Your task to perform on an android device: Turn on the flashlight Image 0: 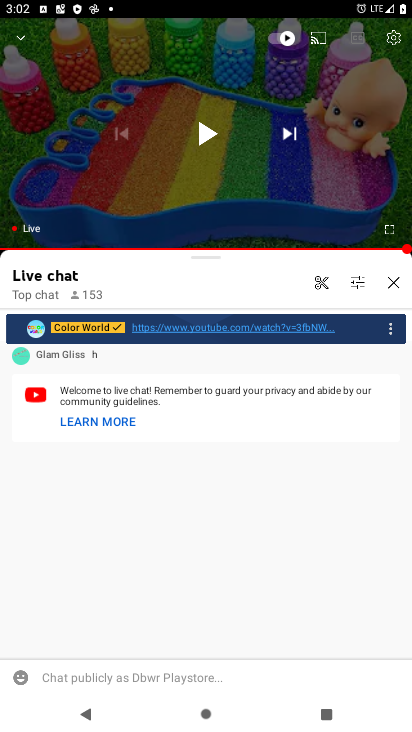
Step 0: press home button
Your task to perform on an android device: Turn on the flashlight Image 1: 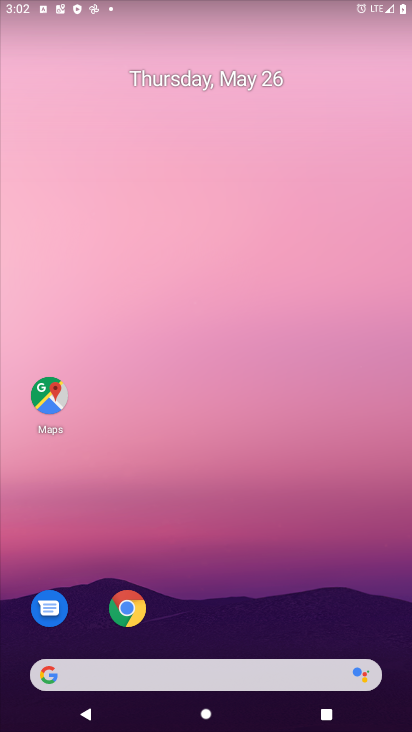
Step 1: drag from (221, 13) to (247, 420)
Your task to perform on an android device: Turn on the flashlight Image 2: 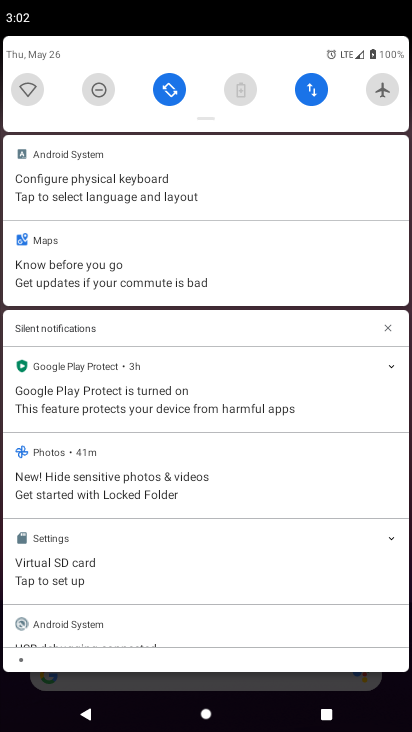
Step 2: drag from (184, 127) to (185, 414)
Your task to perform on an android device: Turn on the flashlight Image 3: 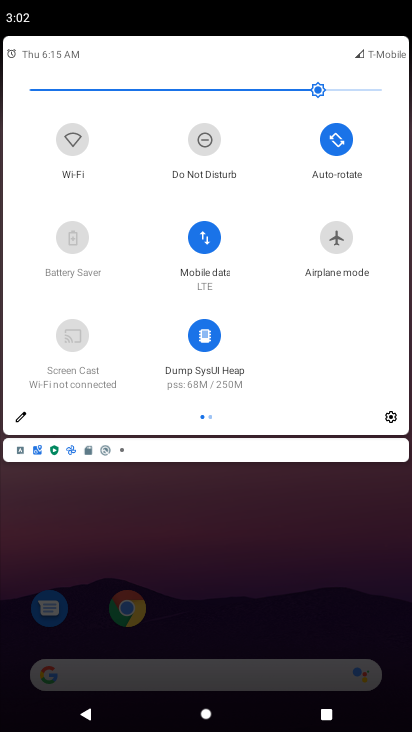
Step 3: click (23, 415)
Your task to perform on an android device: Turn on the flashlight Image 4: 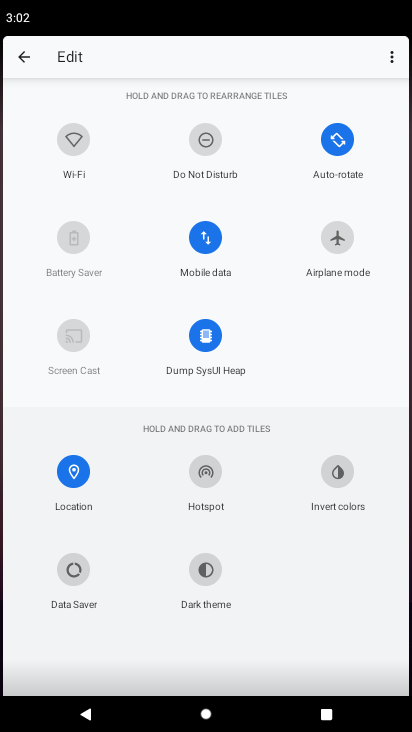
Step 4: task complete